Your task to perform on an android device: Search for seafood restaurants on Google Maps Image 0: 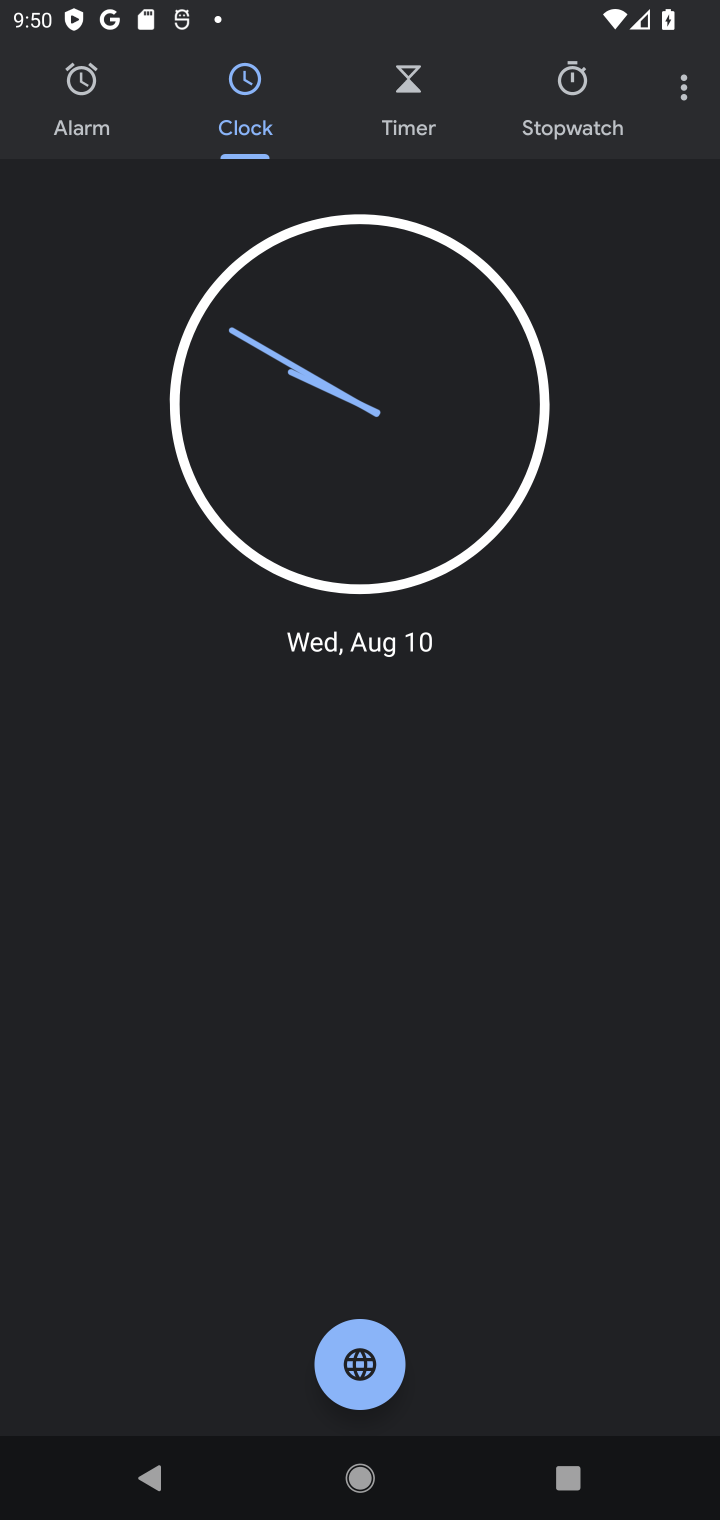
Step 0: press home button
Your task to perform on an android device: Search for seafood restaurants on Google Maps Image 1: 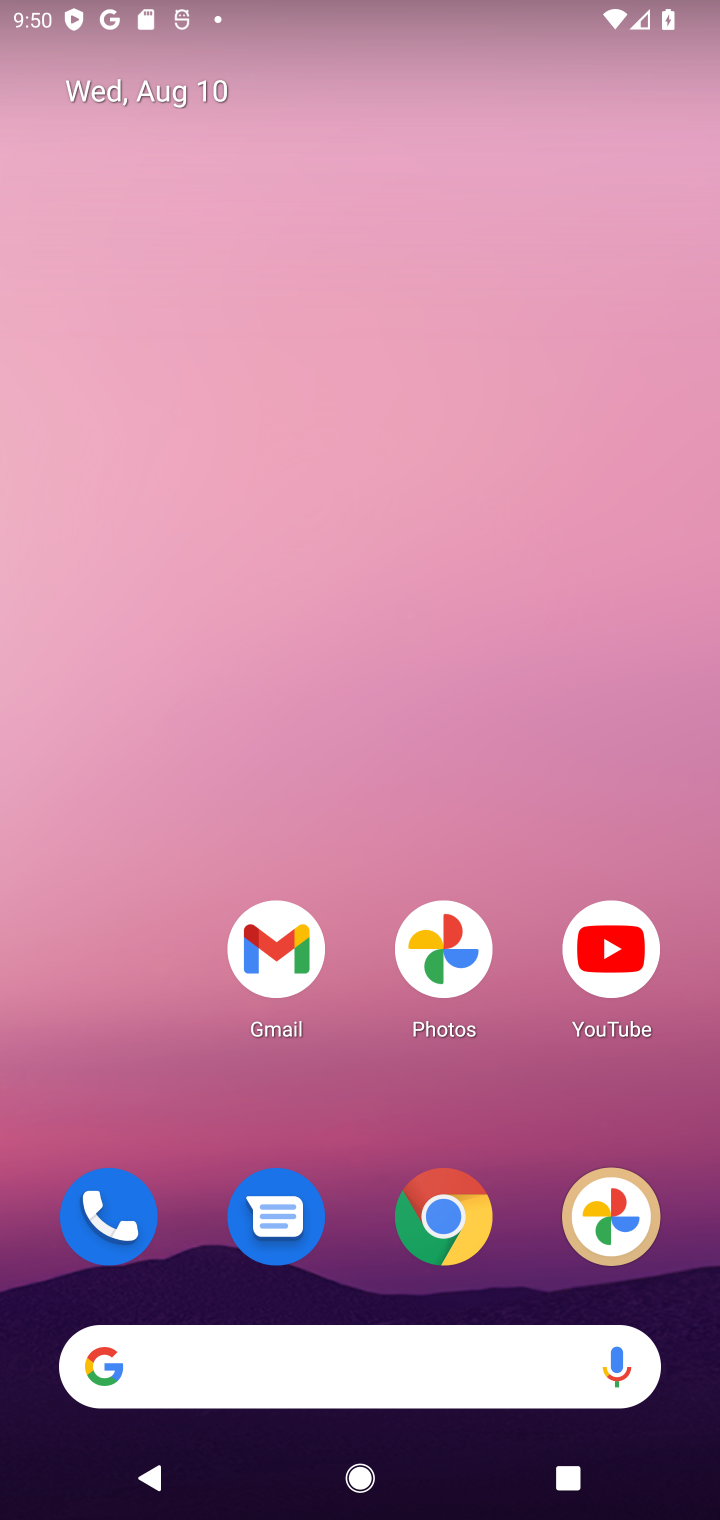
Step 1: drag from (46, 1176) to (542, 194)
Your task to perform on an android device: Search for seafood restaurants on Google Maps Image 2: 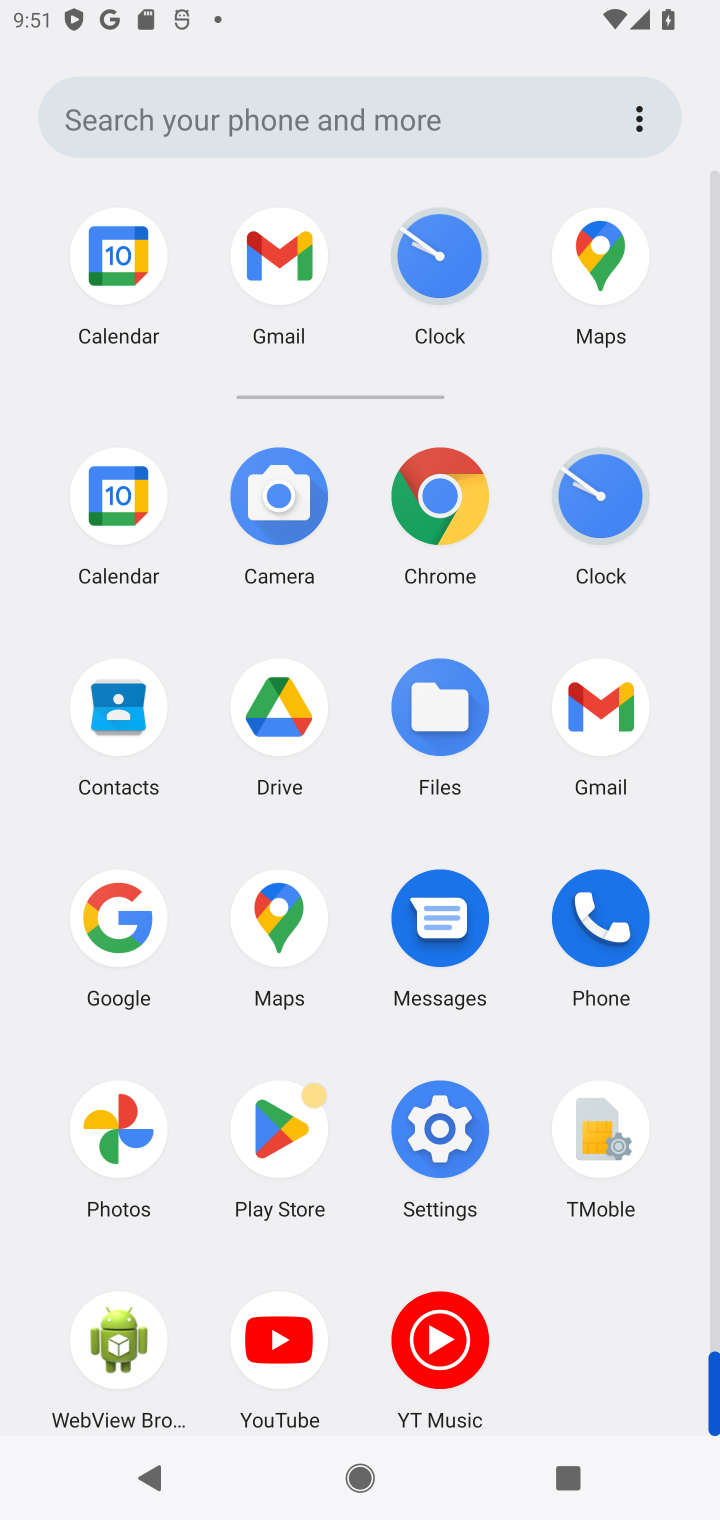
Step 2: click (274, 915)
Your task to perform on an android device: Search for seafood restaurants on Google Maps Image 3: 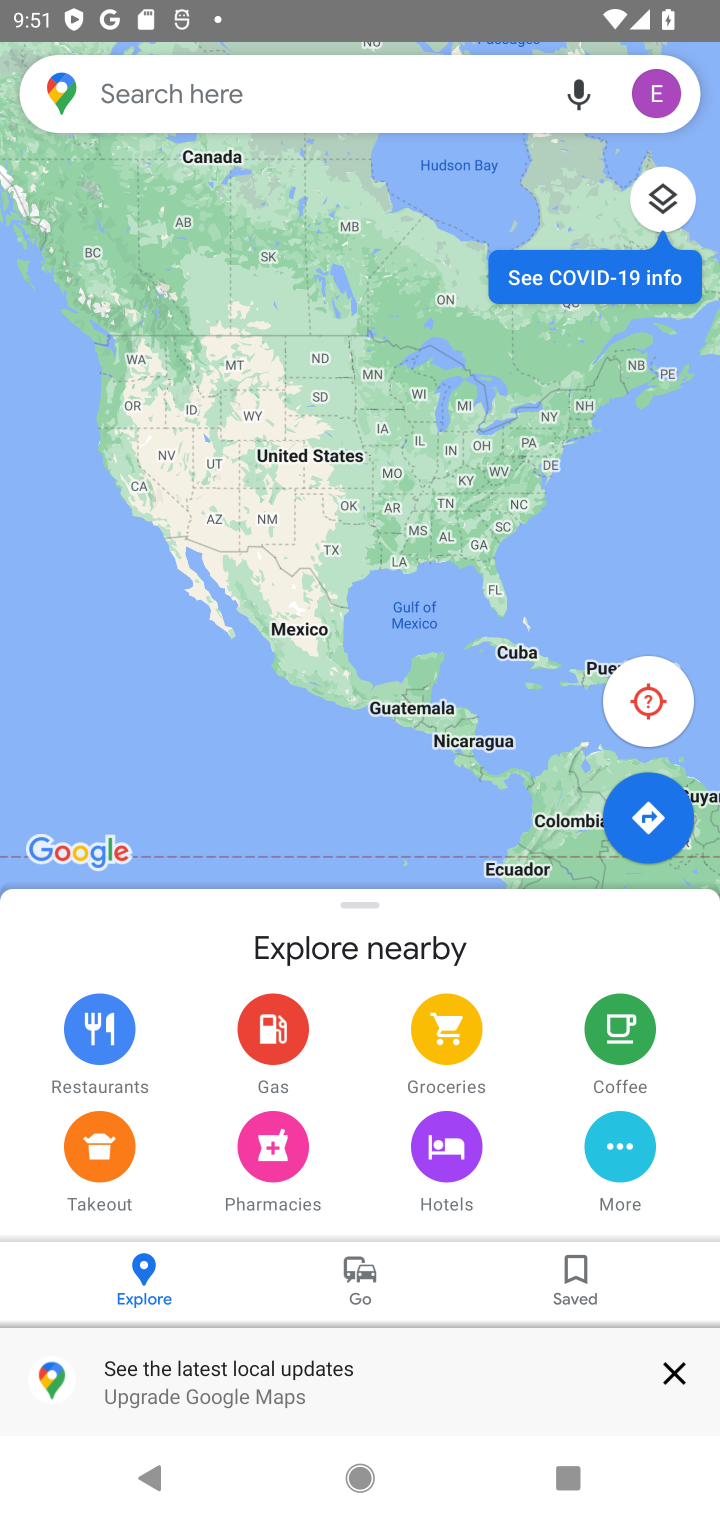
Step 3: click (307, 67)
Your task to perform on an android device: Search for seafood restaurants on Google Maps Image 4: 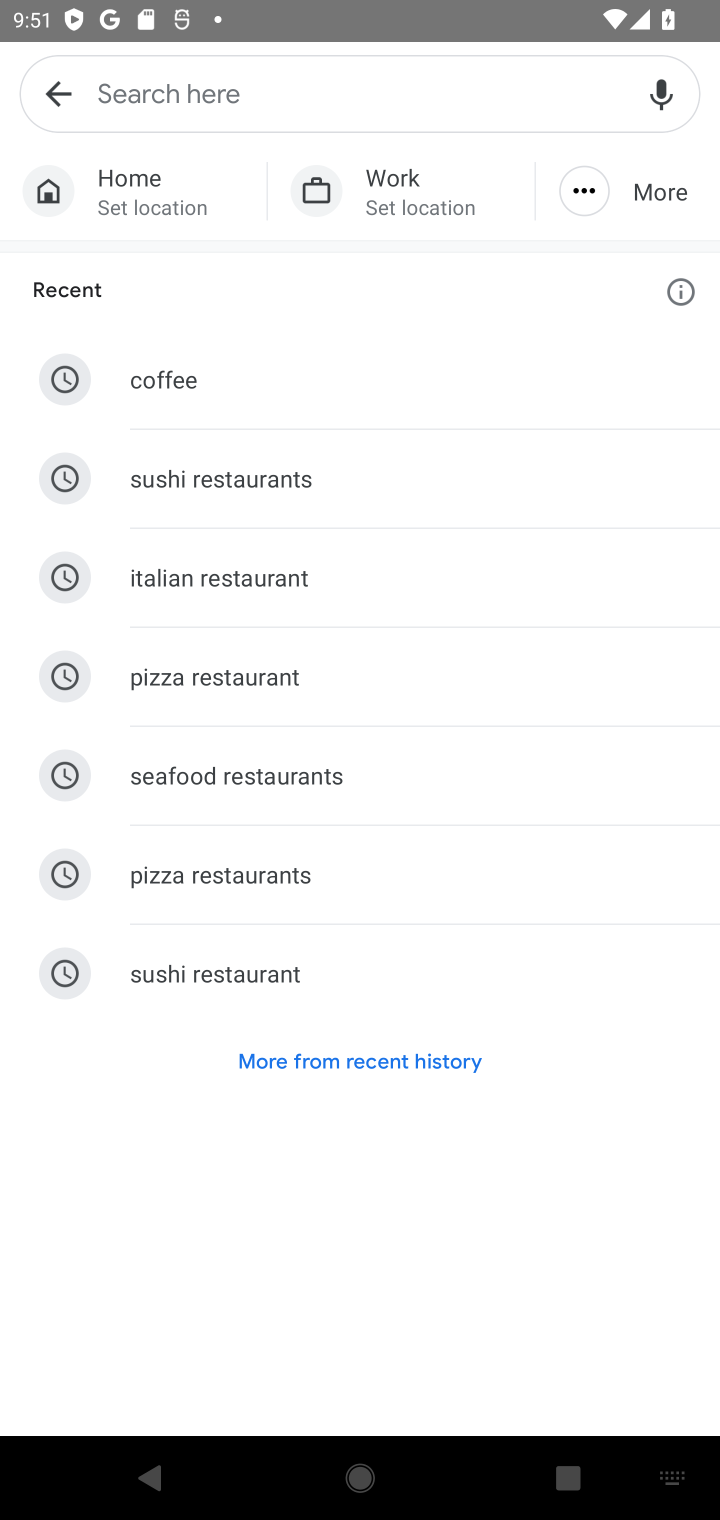
Step 4: click (295, 772)
Your task to perform on an android device: Search for seafood restaurants on Google Maps Image 5: 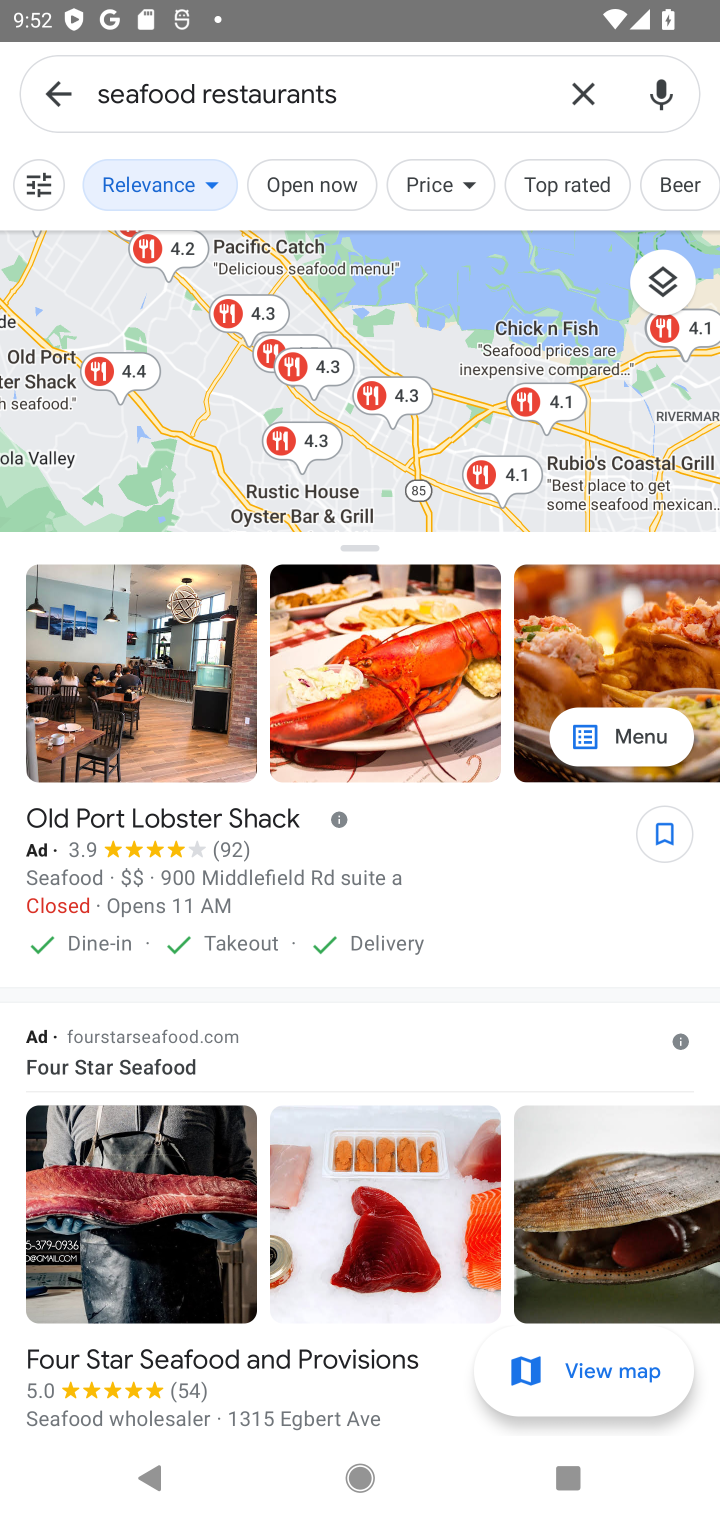
Step 5: task complete